Your task to perform on an android device: Search for top rated burger restaurants on Maps Image 0: 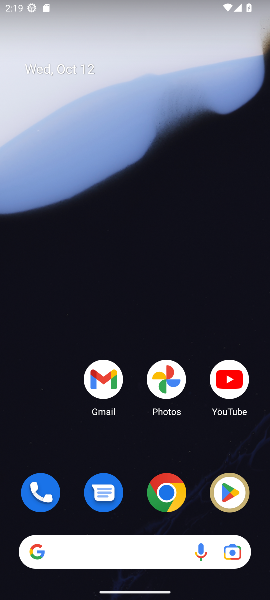
Step 0: drag from (142, 425) to (110, 78)
Your task to perform on an android device: Search for top rated burger restaurants on Maps Image 1: 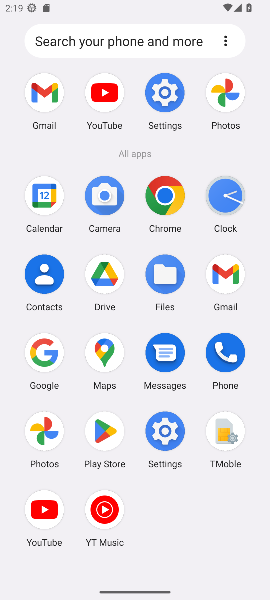
Step 1: click (108, 348)
Your task to perform on an android device: Search for top rated burger restaurants on Maps Image 2: 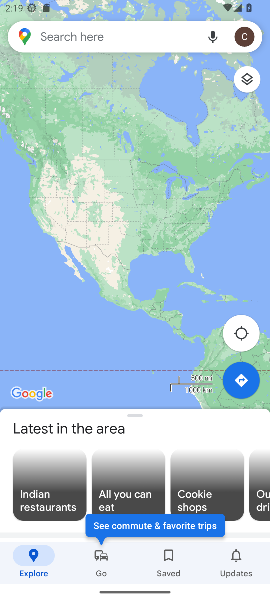
Step 2: click (80, 30)
Your task to perform on an android device: Search for top rated burger restaurants on Maps Image 3: 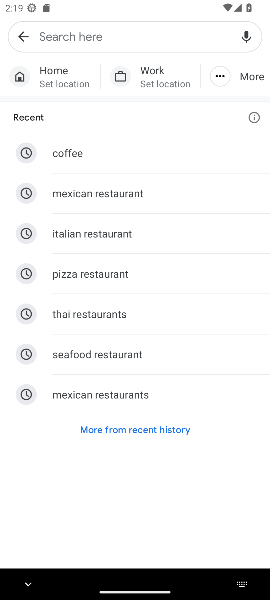
Step 3: type "top rated burger restaurants"
Your task to perform on an android device: Search for top rated burger restaurants on Maps Image 4: 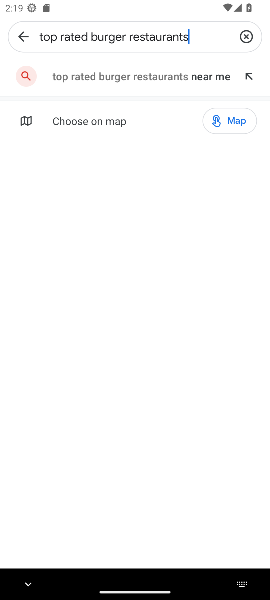
Step 4: click (94, 78)
Your task to perform on an android device: Search for top rated burger restaurants on Maps Image 5: 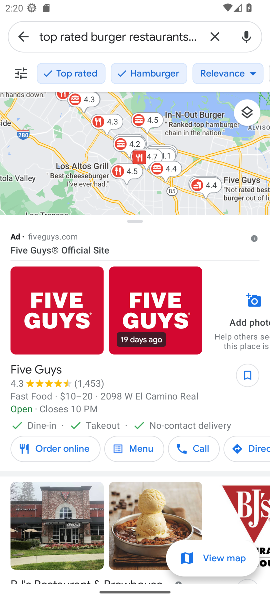
Step 5: task complete